Your task to perform on an android device: Go to Google Image 0: 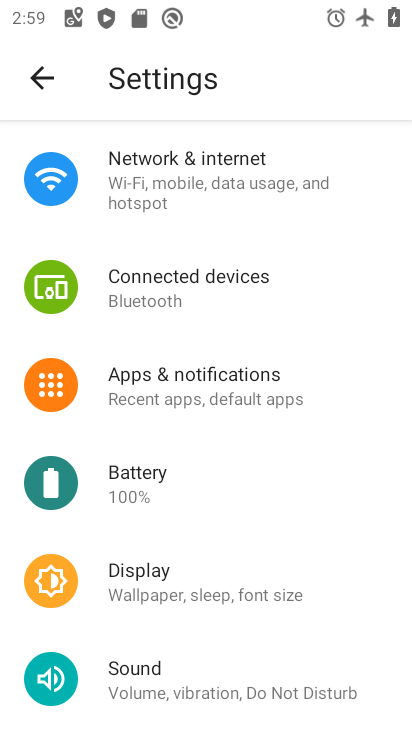
Step 0: press home button
Your task to perform on an android device: Go to Google Image 1: 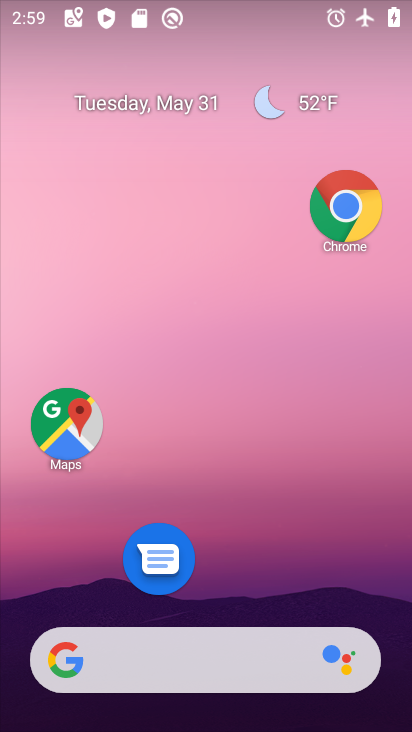
Step 1: click (135, 119)
Your task to perform on an android device: Go to Google Image 2: 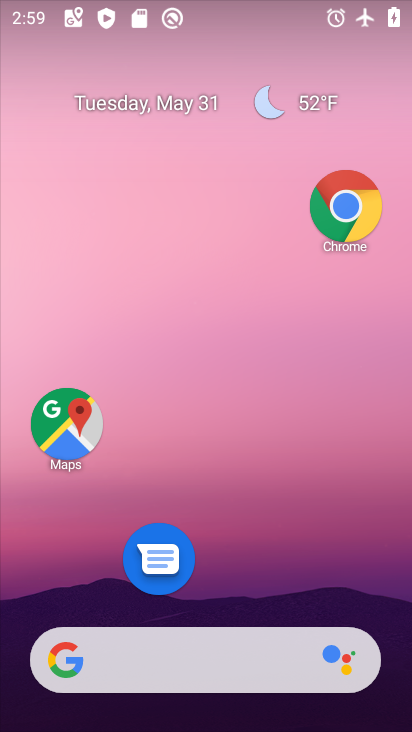
Step 2: drag from (264, 576) to (216, 78)
Your task to perform on an android device: Go to Google Image 3: 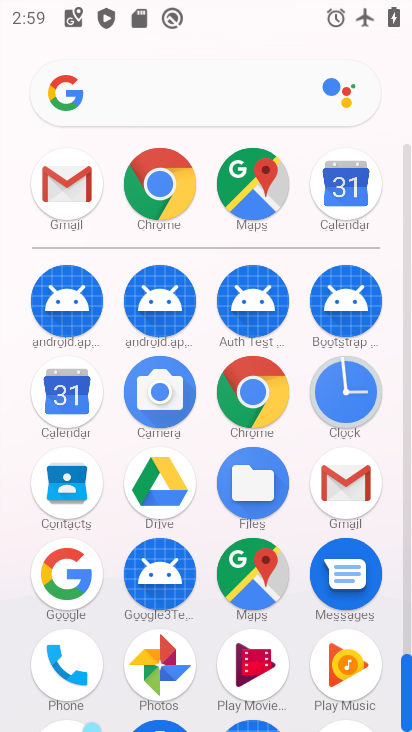
Step 3: click (80, 579)
Your task to perform on an android device: Go to Google Image 4: 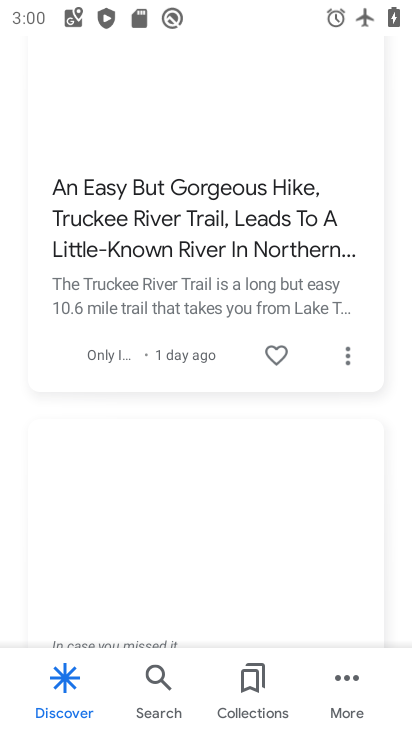
Step 4: task complete